Your task to perform on an android device: set an alarm Image 0: 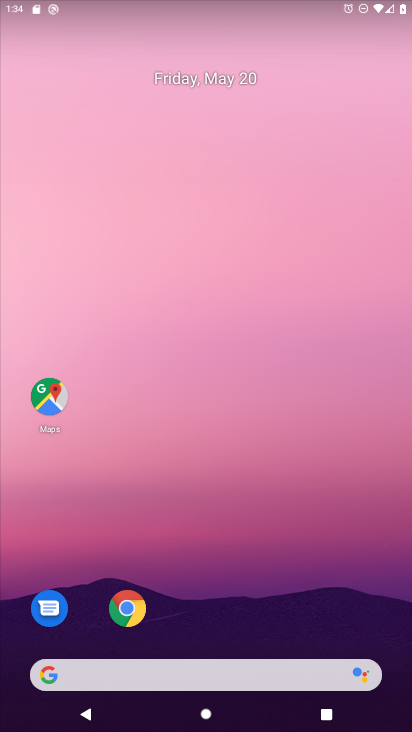
Step 0: drag from (354, 550) to (386, 10)
Your task to perform on an android device: set an alarm Image 1: 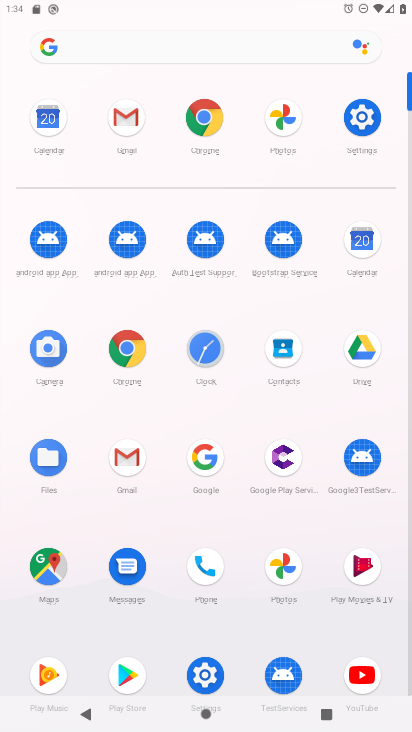
Step 1: click (222, 353)
Your task to perform on an android device: set an alarm Image 2: 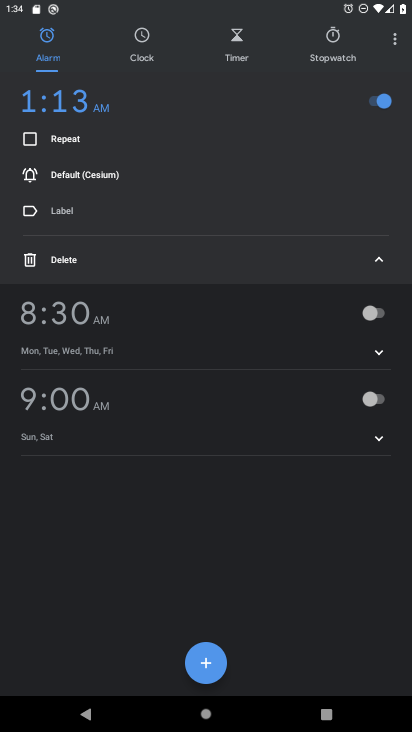
Step 2: click (184, 339)
Your task to perform on an android device: set an alarm Image 3: 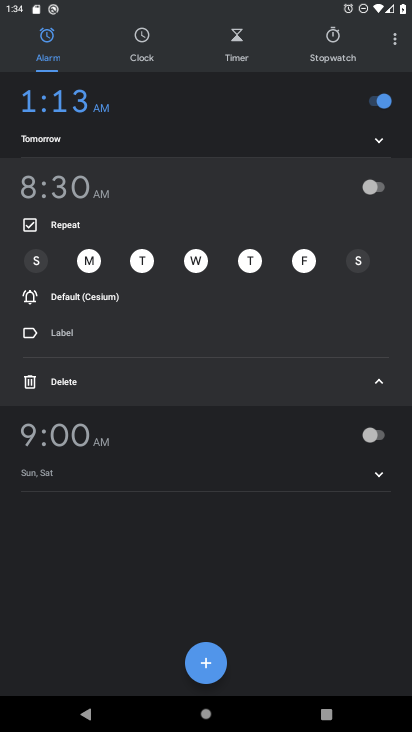
Step 3: click (58, 187)
Your task to perform on an android device: set an alarm Image 4: 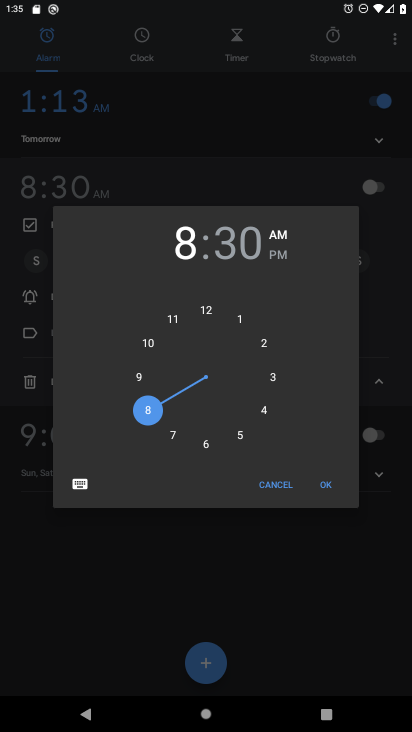
Step 4: click (206, 436)
Your task to perform on an android device: set an alarm Image 5: 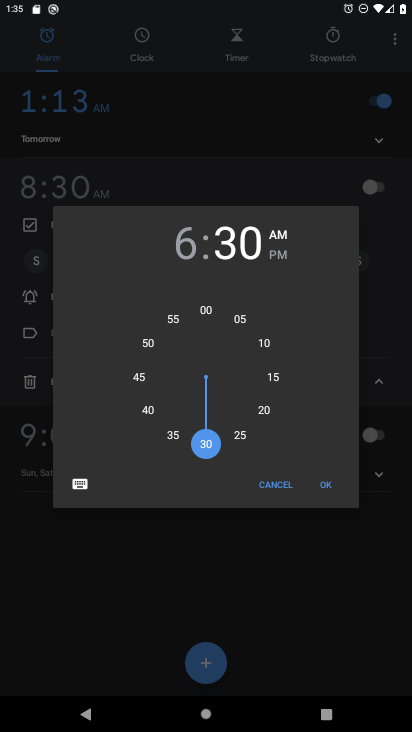
Step 5: click (264, 412)
Your task to perform on an android device: set an alarm Image 6: 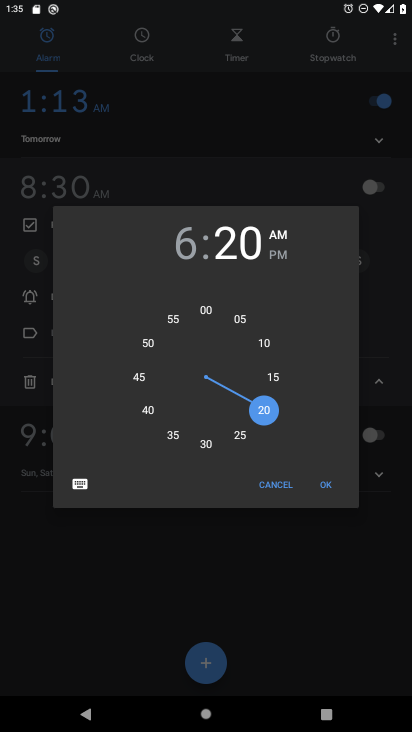
Step 6: task complete